Your task to perform on an android device: install app "HBO Max: Stream TV & Movies" Image 0: 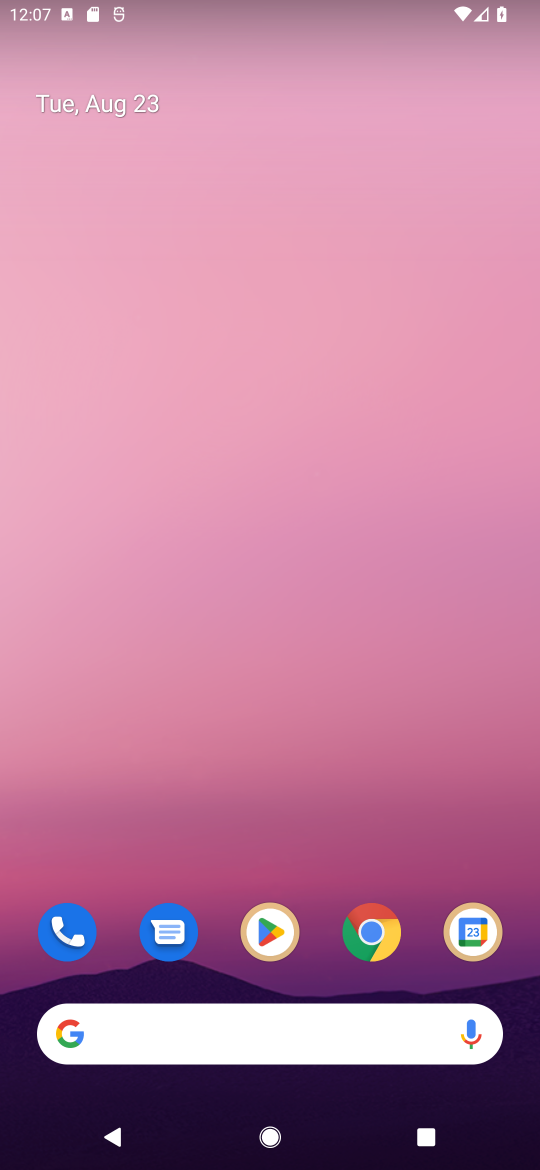
Step 0: click (271, 934)
Your task to perform on an android device: install app "HBO Max: Stream TV & Movies" Image 1: 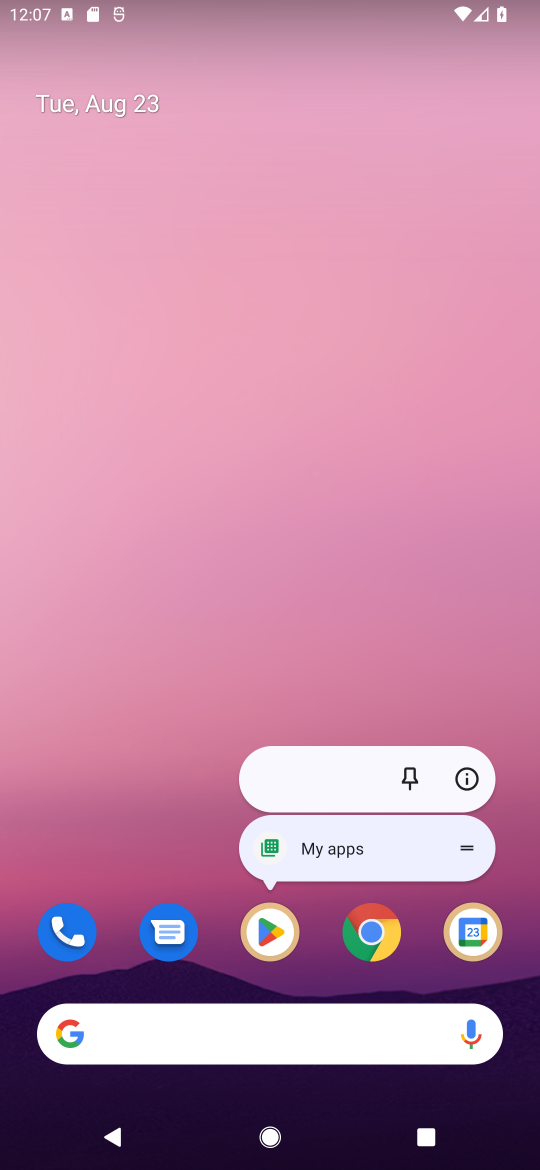
Step 1: click (280, 939)
Your task to perform on an android device: install app "HBO Max: Stream TV & Movies" Image 2: 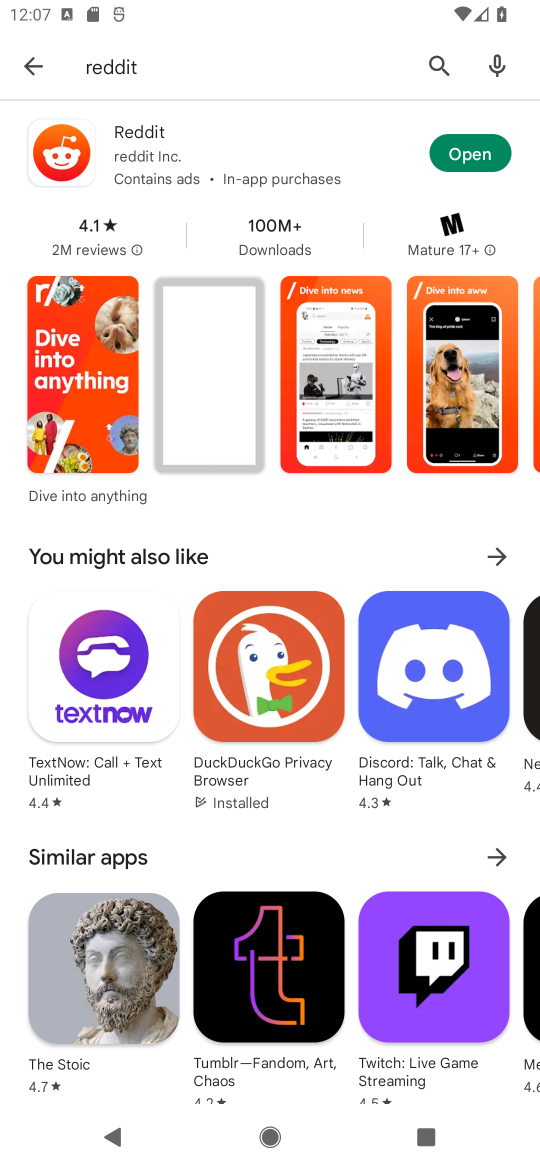
Step 2: click (430, 73)
Your task to perform on an android device: install app "HBO Max: Stream TV & Movies" Image 3: 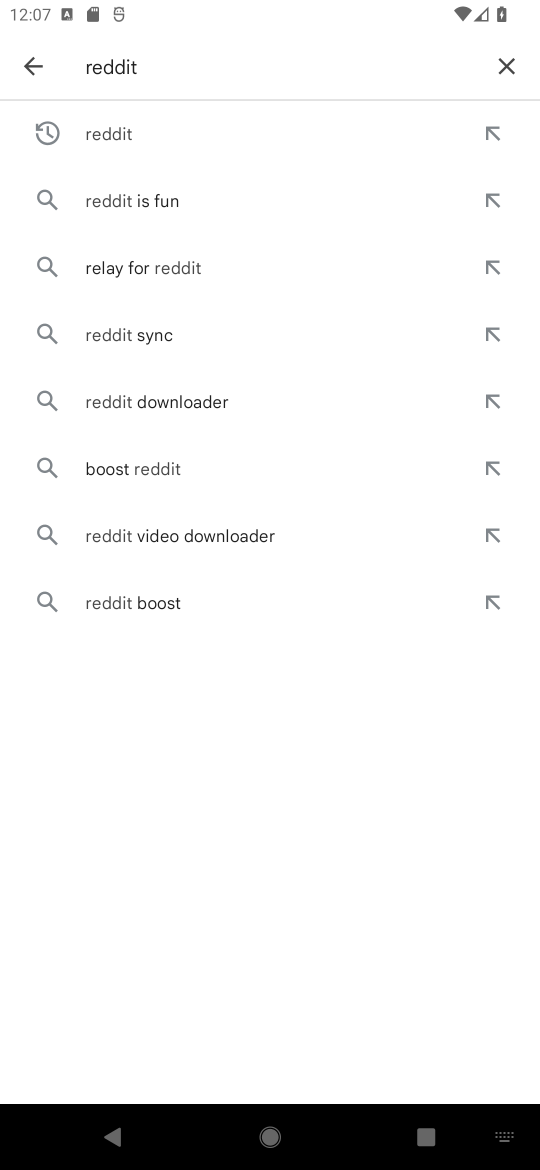
Step 3: click (509, 61)
Your task to perform on an android device: install app "HBO Max: Stream TV & Movies" Image 4: 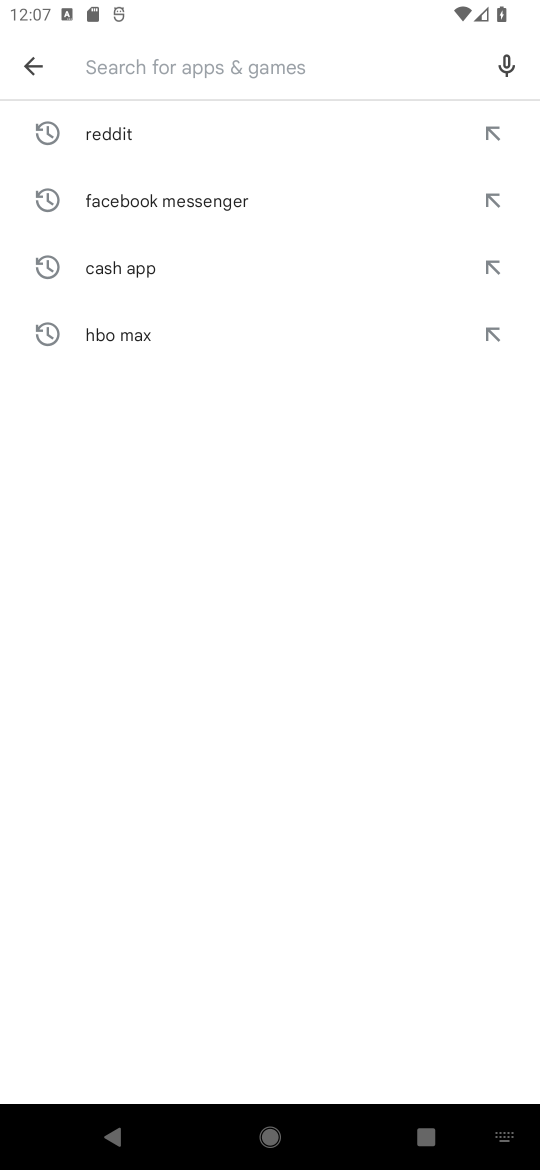
Step 4: click (249, 59)
Your task to perform on an android device: install app "HBO Max: Stream TV & Movies" Image 5: 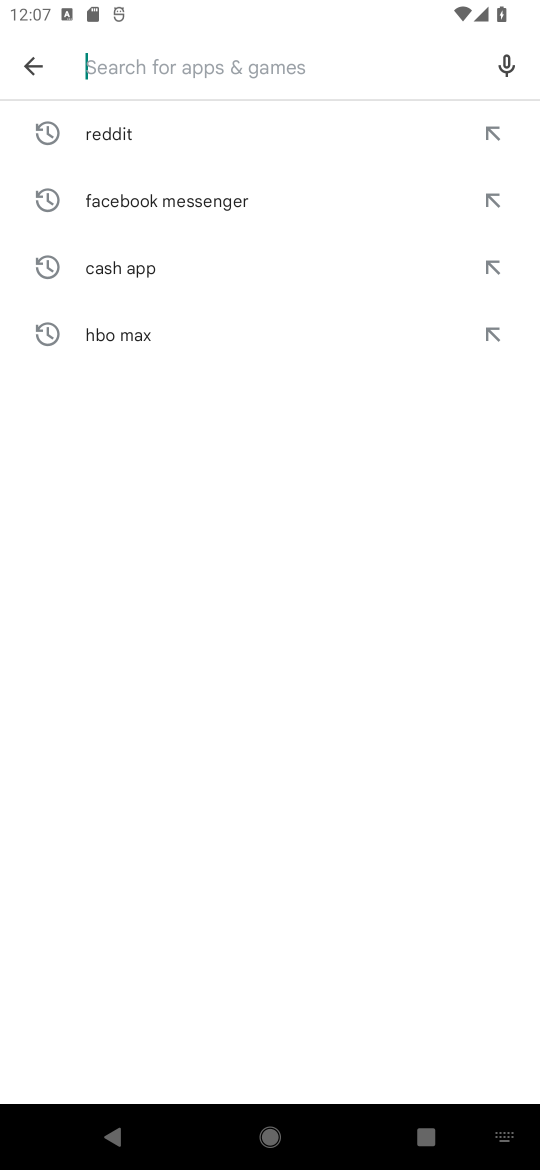
Step 5: type "hbo"
Your task to perform on an android device: install app "HBO Max: Stream TV & Movies" Image 6: 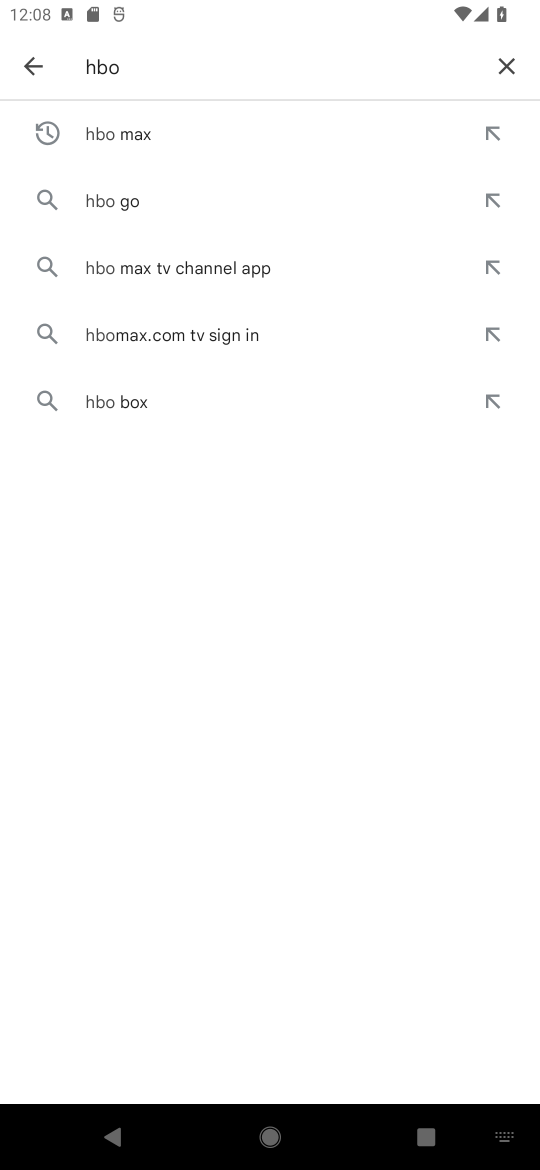
Step 6: click (188, 134)
Your task to perform on an android device: install app "HBO Max: Stream TV & Movies" Image 7: 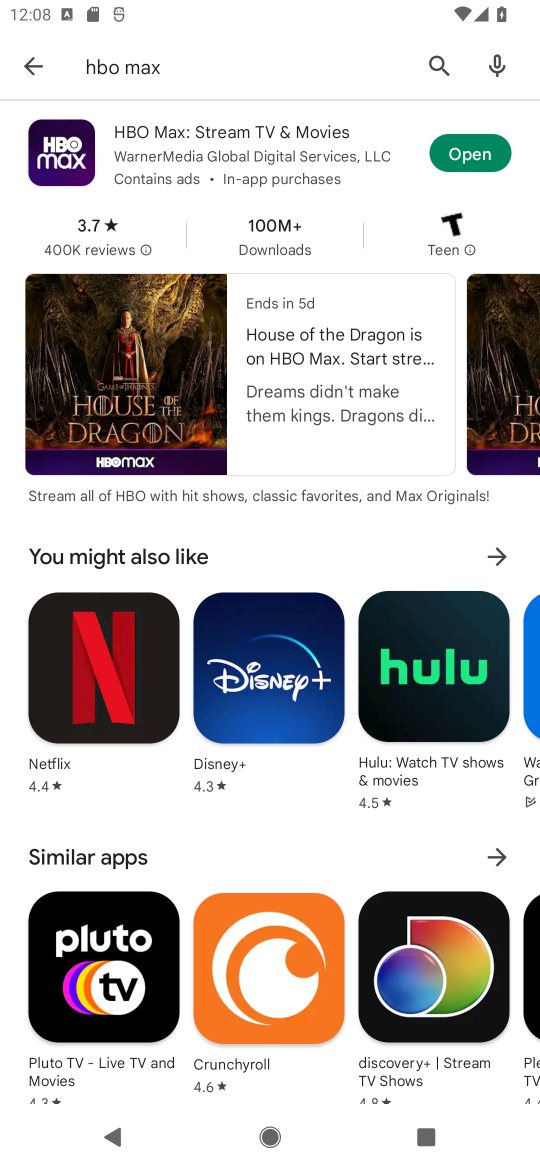
Step 7: task complete